Your task to perform on an android device: turn on showing notifications on the lock screen Image 0: 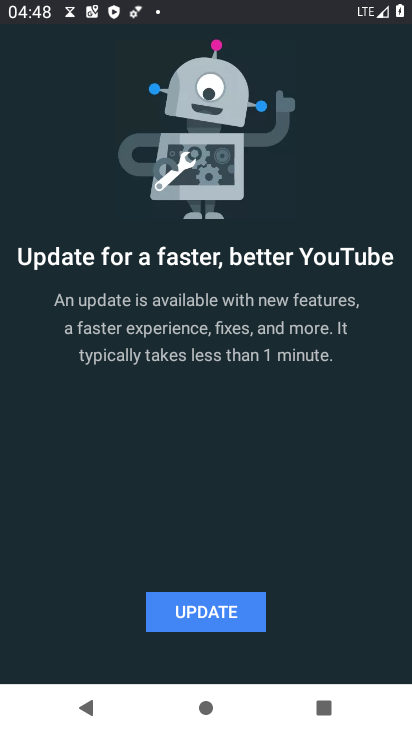
Step 0: press back button
Your task to perform on an android device: turn on showing notifications on the lock screen Image 1: 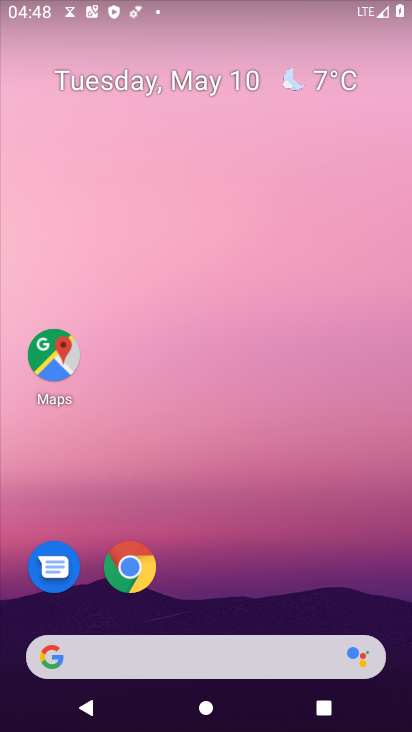
Step 1: drag from (235, 580) to (233, 39)
Your task to perform on an android device: turn on showing notifications on the lock screen Image 2: 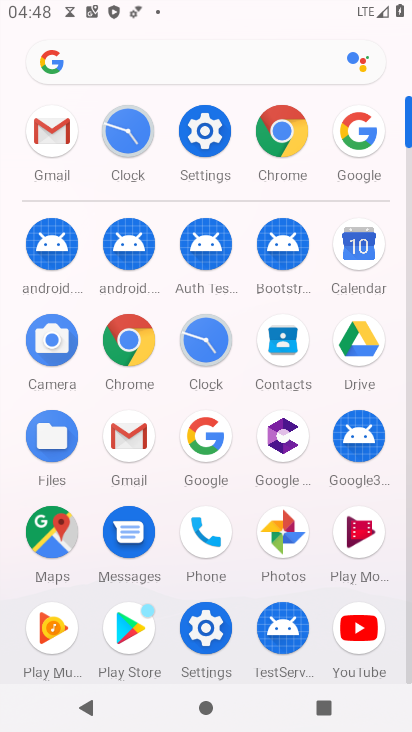
Step 2: click (204, 125)
Your task to perform on an android device: turn on showing notifications on the lock screen Image 3: 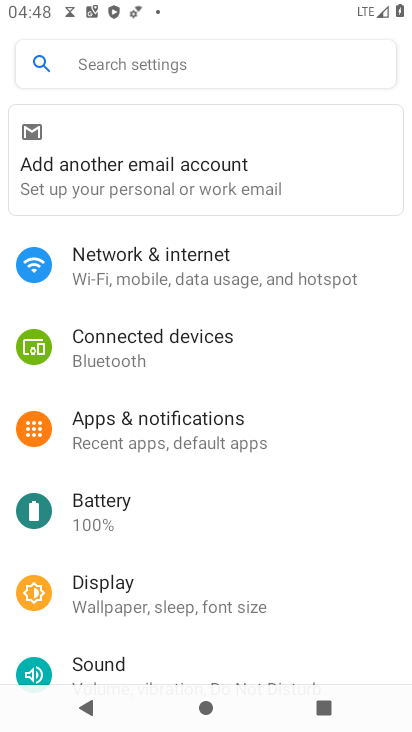
Step 3: drag from (168, 499) to (225, 394)
Your task to perform on an android device: turn on showing notifications on the lock screen Image 4: 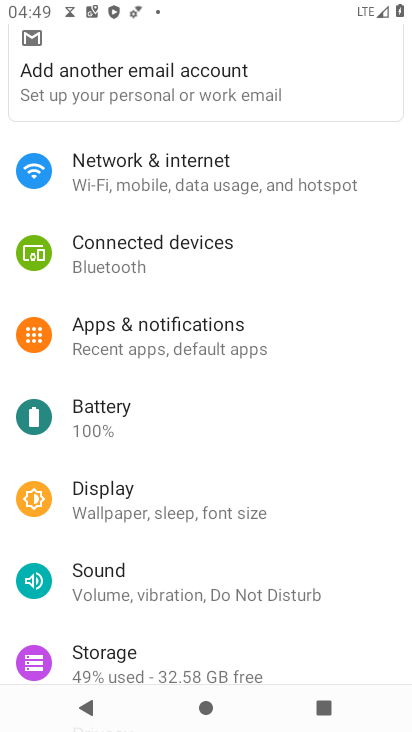
Step 4: click (181, 330)
Your task to perform on an android device: turn on showing notifications on the lock screen Image 5: 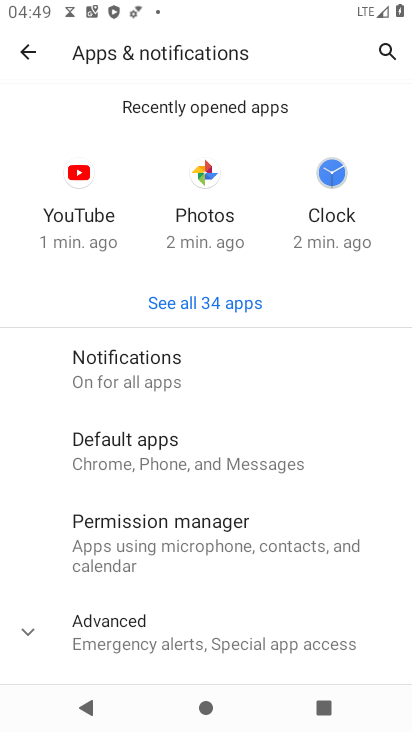
Step 5: click (154, 361)
Your task to perform on an android device: turn on showing notifications on the lock screen Image 6: 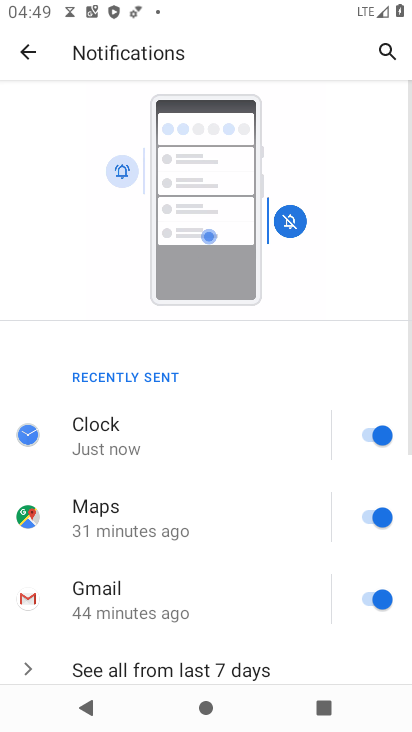
Step 6: drag from (187, 585) to (213, 381)
Your task to perform on an android device: turn on showing notifications on the lock screen Image 7: 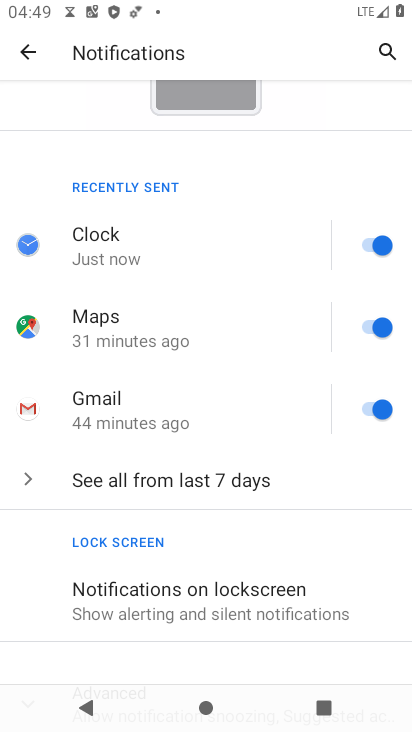
Step 7: click (175, 595)
Your task to perform on an android device: turn on showing notifications on the lock screen Image 8: 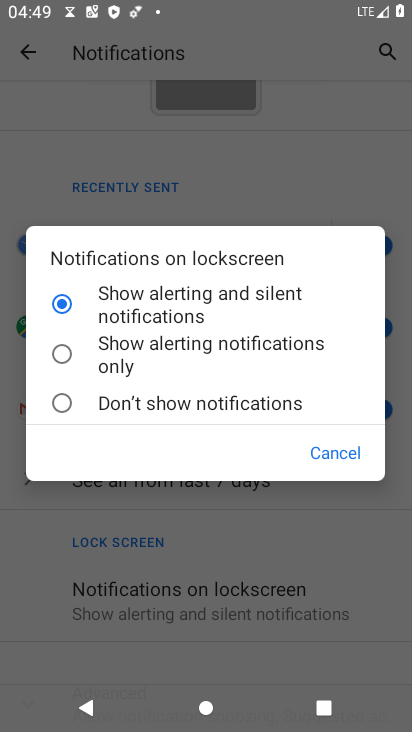
Step 8: click (157, 294)
Your task to perform on an android device: turn on showing notifications on the lock screen Image 9: 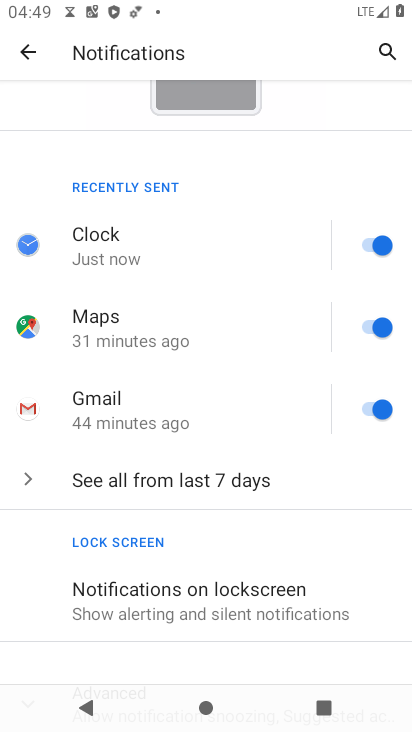
Step 9: task complete